Your task to perform on an android device: add a contact in the contacts app Image 0: 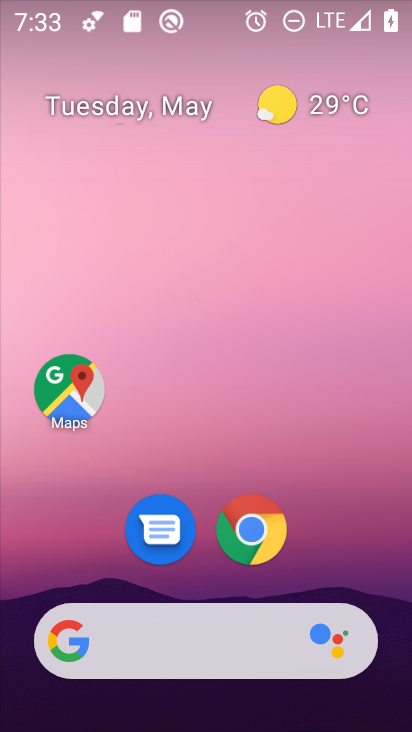
Step 0: drag from (400, 637) to (316, 103)
Your task to perform on an android device: add a contact in the contacts app Image 1: 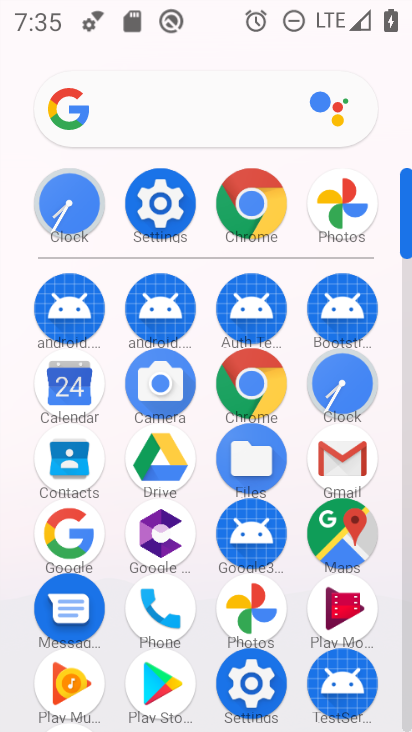
Step 1: click (72, 467)
Your task to perform on an android device: add a contact in the contacts app Image 2: 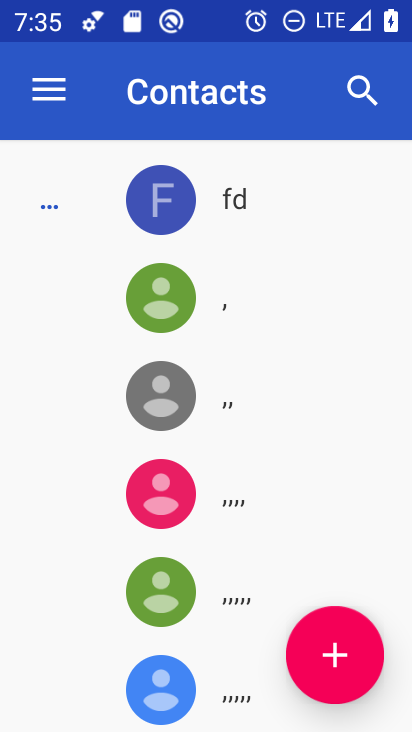
Step 2: click (327, 683)
Your task to perform on an android device: add a contact in the contacts app Image 3: 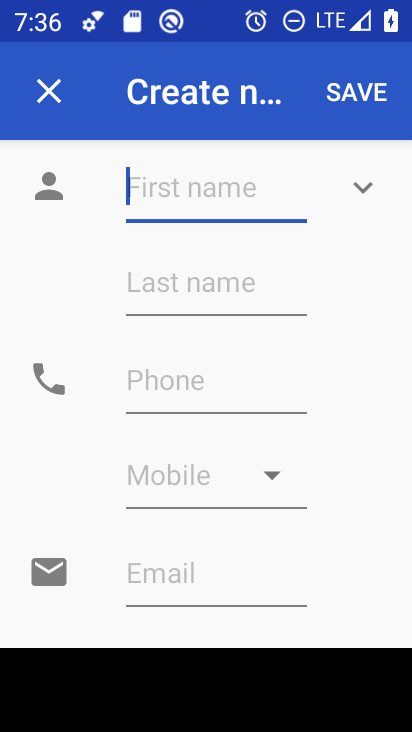
Step 3: type "Komal"
Your task to perform on an android device: add a contact in the contacts app Image 4: 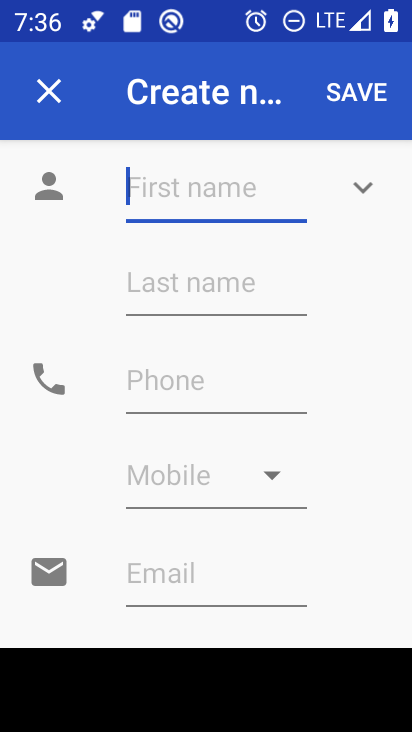
Step 4: click (361, 88)
Your task to perform on an android device: add a contact in the contacts app Image 5: 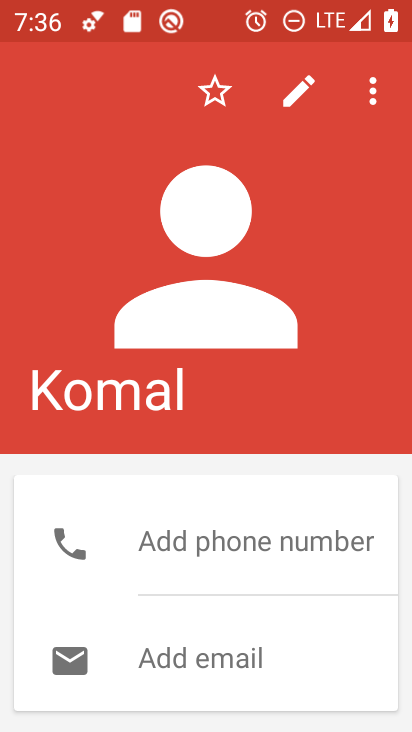
Step 5: task complete